Your task to perform on an android device: What's the weather today? Image 0: 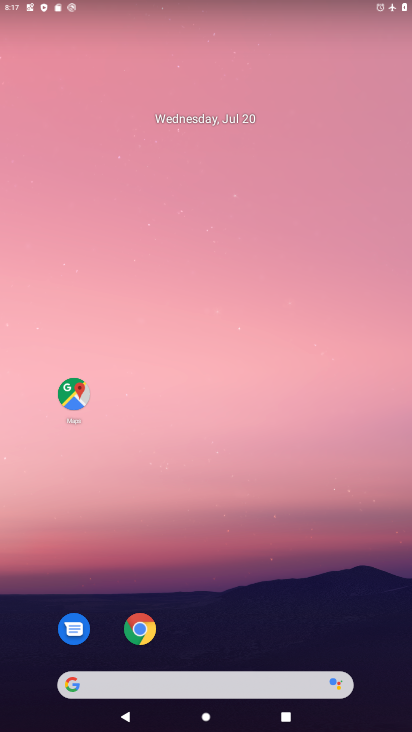
Step 0: drag from (174, 308) to (131, 51)
Your task to perform on an android device: What's the weather today? Image 1: 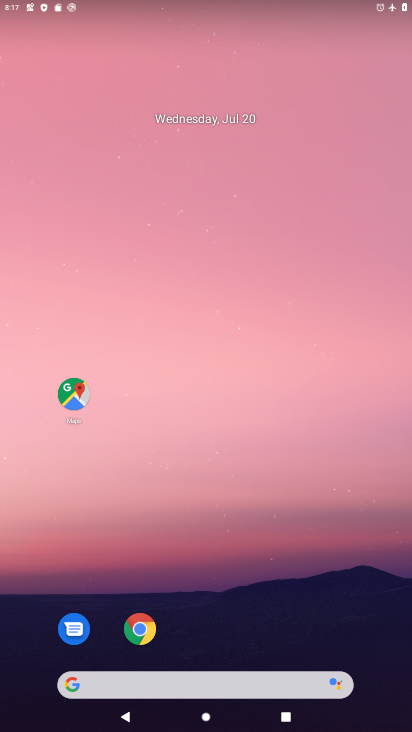
Step 1: drag from (179, 608) to (141, 25)
Your task to perform on an android device: What's the weather today? Image 2: 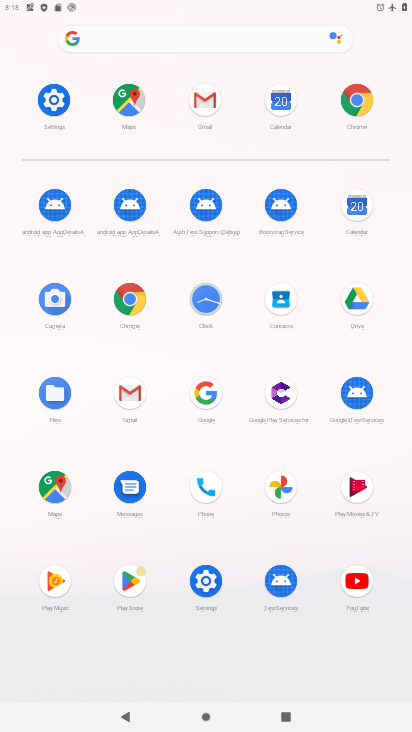
Step 2: click (207, 404)
Your task to perform on an android device: What's the weather today? Image 3: 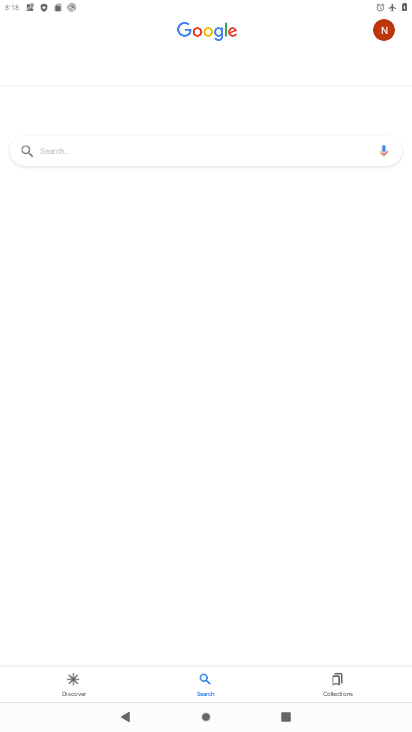
Step 3: click (140, 150)
Your task to perform on an android device: What's the weather today? Image 4: 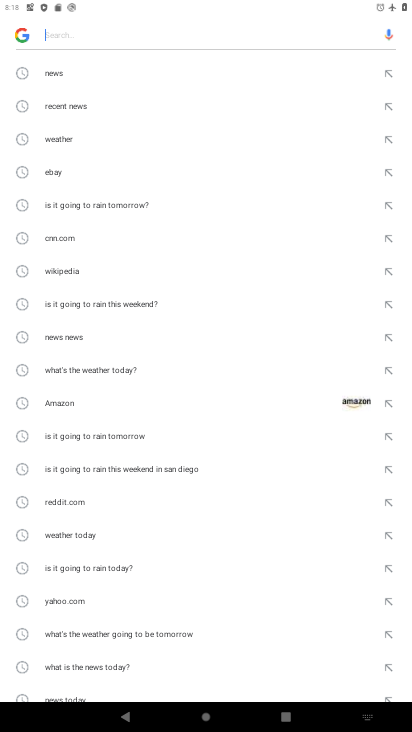
Step 4: click (56, 142)
Your task to perform on an android device: What's the weather today? Image 5: 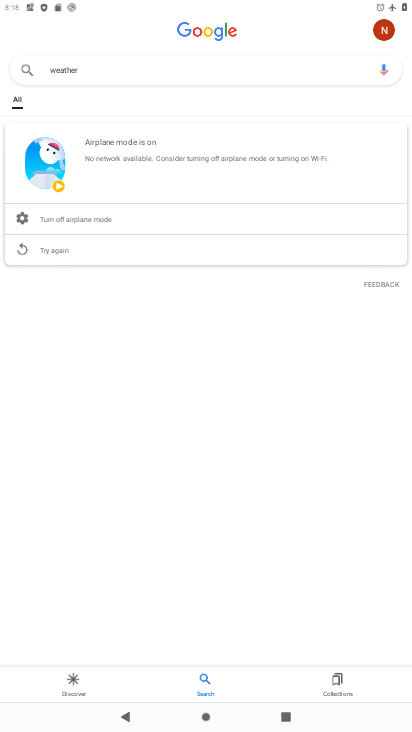
Step 5: press back button
Your task to perform on an android device: What's the weather today? Image 6: 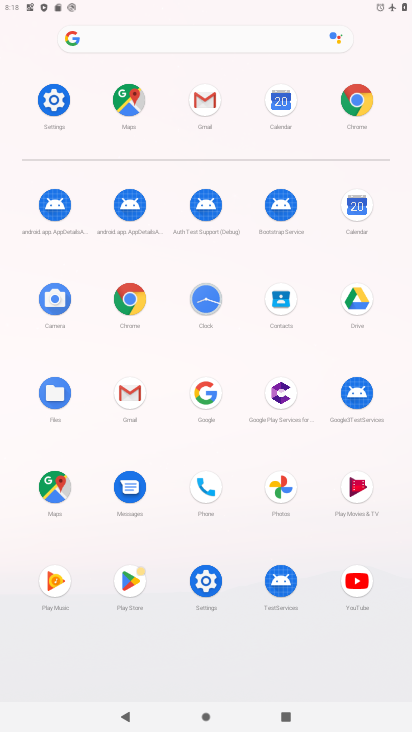
Step 6: press back button
Your task to perform on an android device: What's the weather today? Image 7: 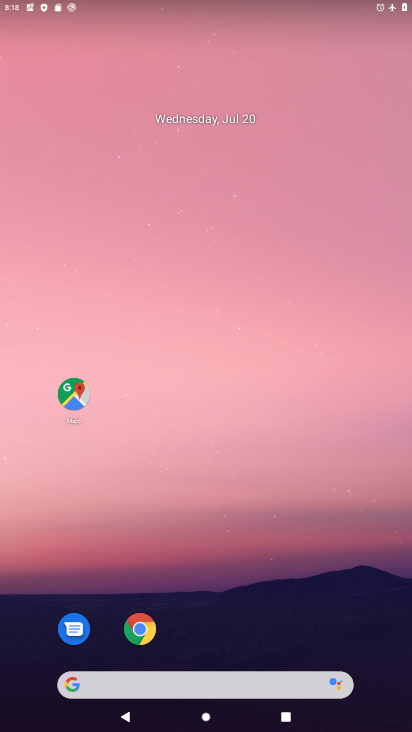
Step 7: drag from (159, 343) to (160, 156)
Your task to perform on an android device: What's the weather today? Image 8: 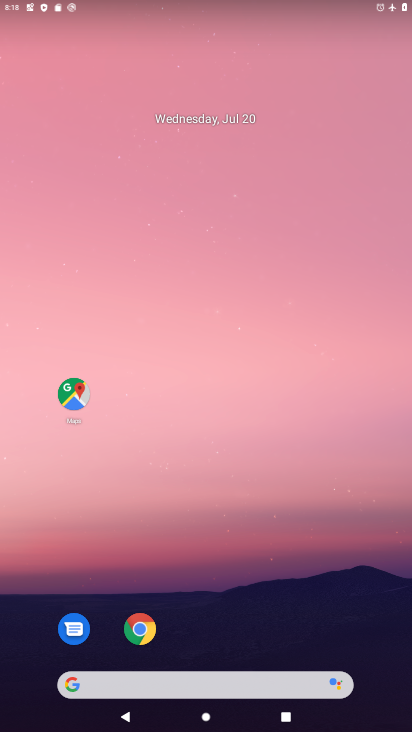
Step 8: drag from (185, 260) to (175, 28)
Your task to perform on an android device: What's the weather today? Image 9: 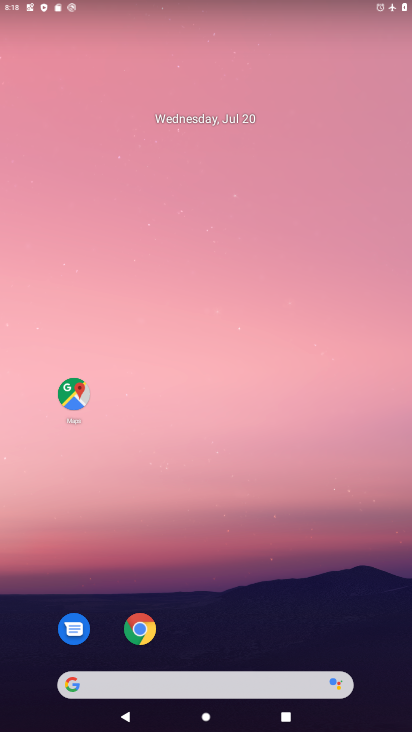
Step 9: drag from (197, 631) to (188, 28)
Your task to perform on an android device: What's the weather today? Image 10: 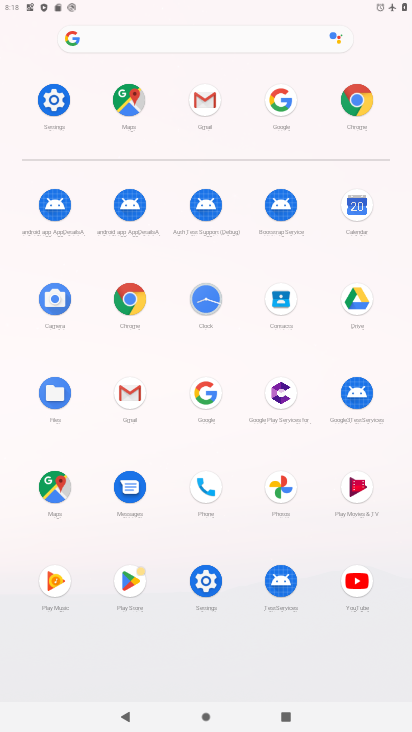
Step 10: click (53, 102)
Your task to perform on an android device: What's the weather today? Image 11: 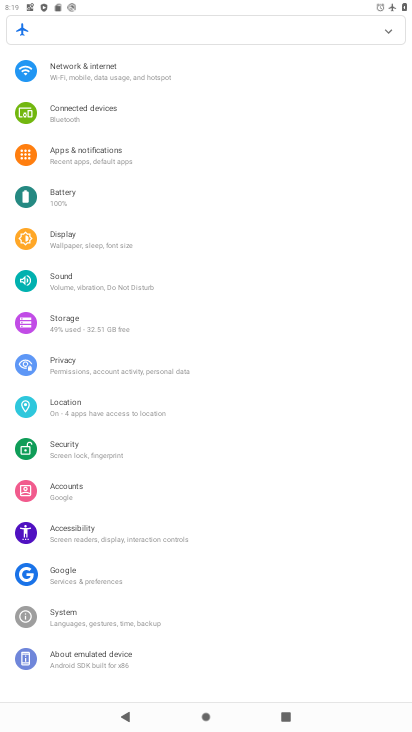
Step 11: click (389, 30)
Your task to perform on an android device: What's the weather today? Image 12: 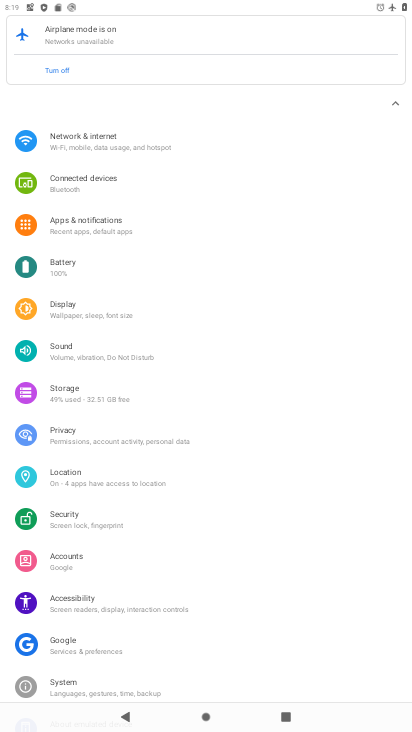
Step 12: click (62, 70)
Your task to perform on an android device: What's the weather today? Image 13: 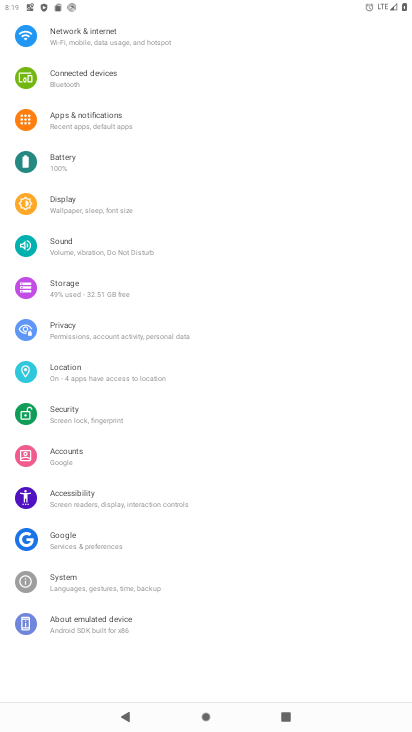
Step 13: press back button
Your task to perform on an android device: What's the weather today? Image 14: 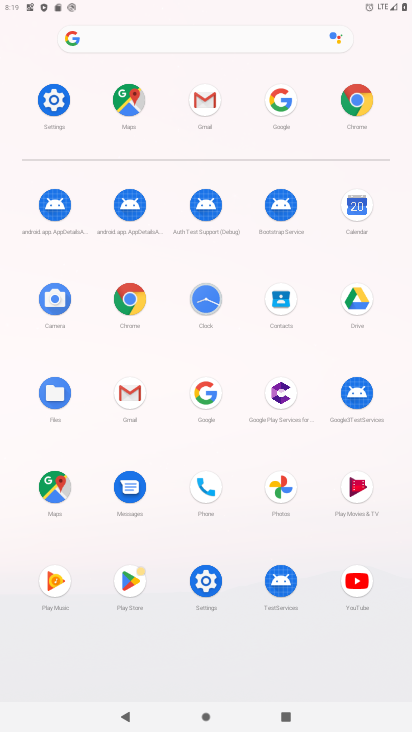
Step 14: click (207, 402)
Your task to perform on an android device: What's the weather today? Image 15: 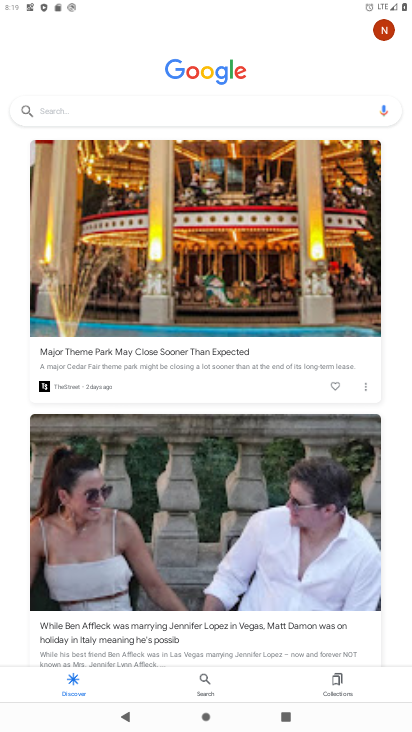
Step 15: click (189, 106)
Your task to perform on an android device: What's the weather today? Image 16: 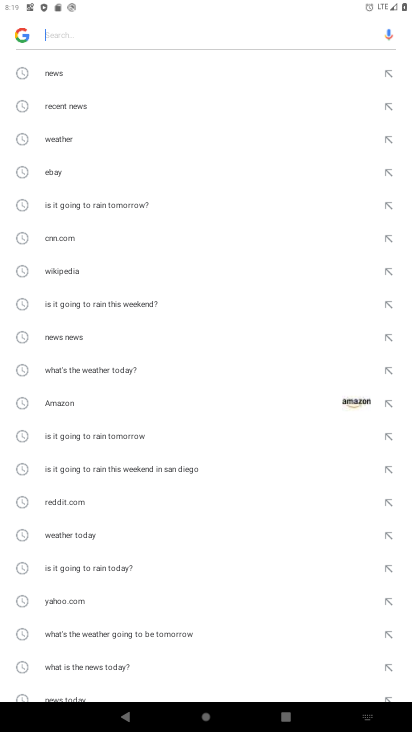
Step 16: click (67, 144)
Your task to perform on an android device: What's the weather today? Image 17: 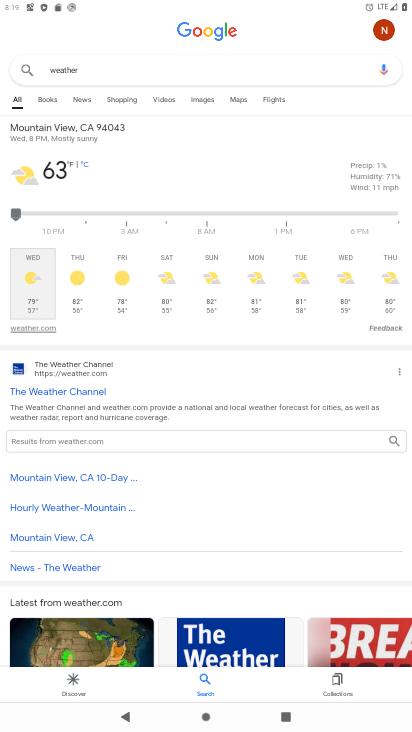
Step 17: task complete